Your task to perform on an android device: Open the phone app and click the voicemail tab. Image 0: 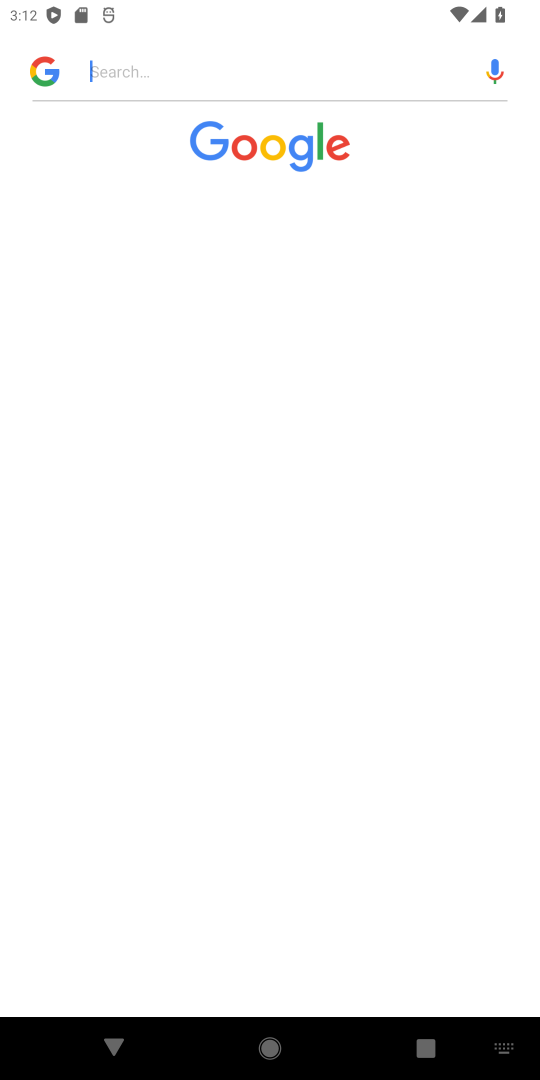
Step 0: press back button
Your task to perform on an android device: Open the phone app and click the voicemail tab. Image 1: 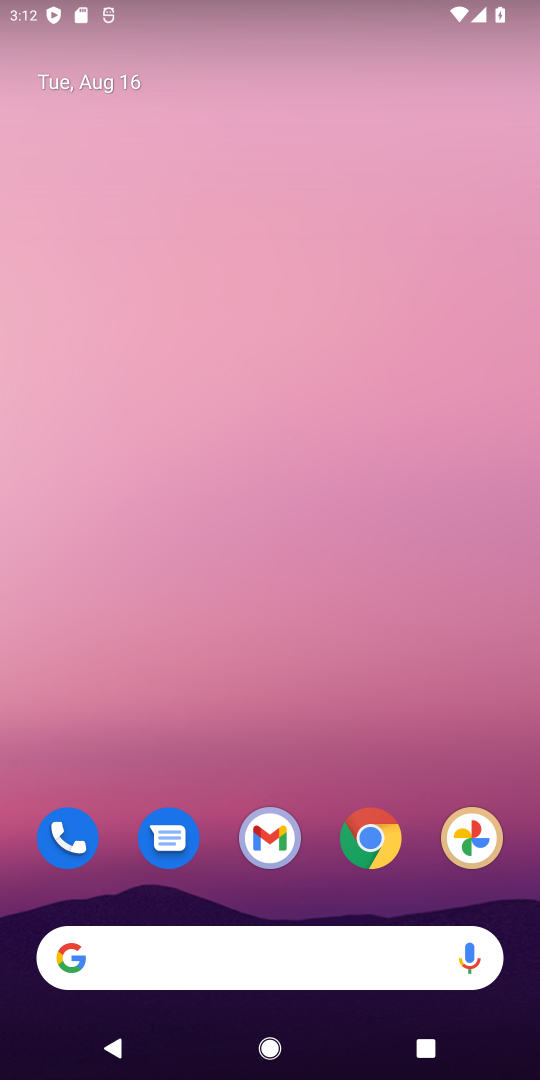
Step 1: drag from (262, 944) to (166, 156)
Your task to perform on an android device: Open the phone app and click the voicemail tab. Image 2: 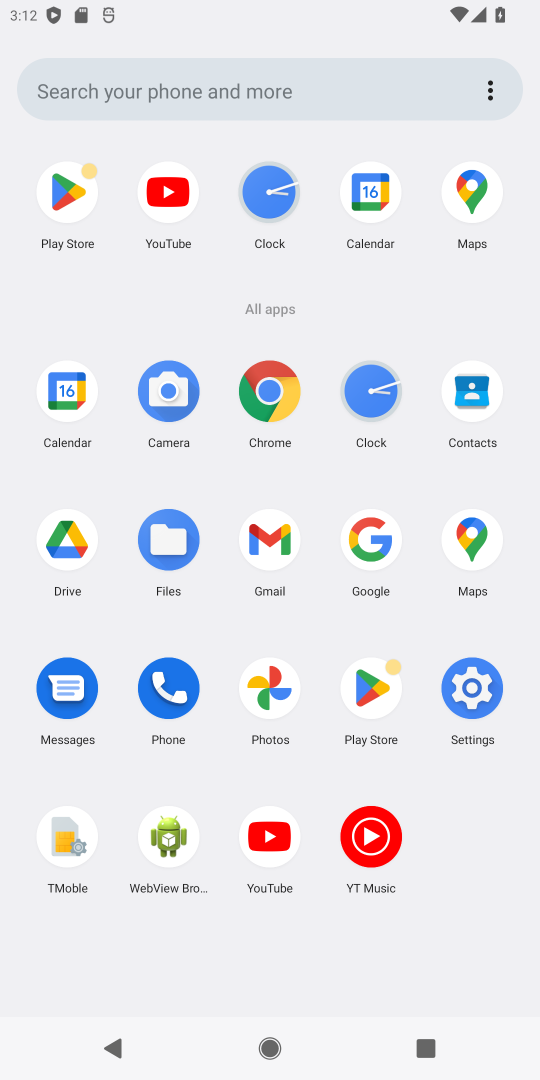
Step 2: click (164, 689)
Your task to perform on an android device: Open the phone app and click the voicemail tab. Image 3: 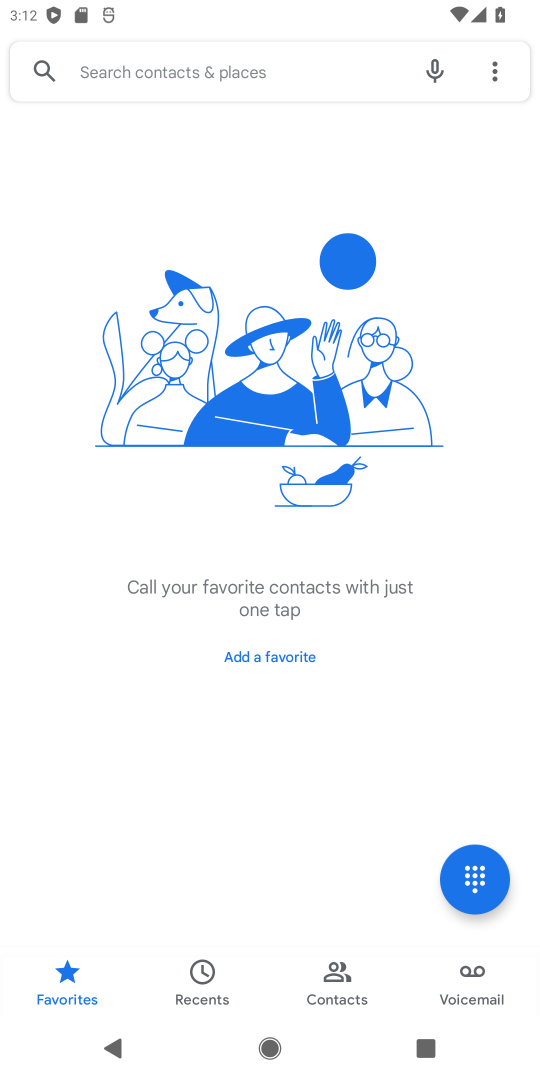
Step 3: click (469, 973)
Your task to perform on an android device: Open the phone app and click the voicemail tab. Image 4: 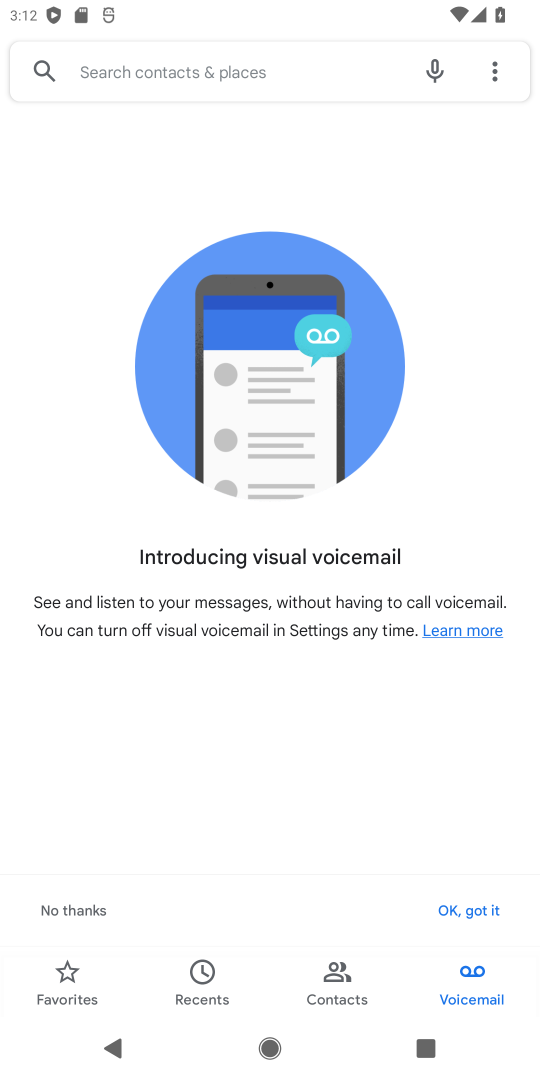
Step 4: task complete